Your task to perform on an android device: Go to eBay Image 0: 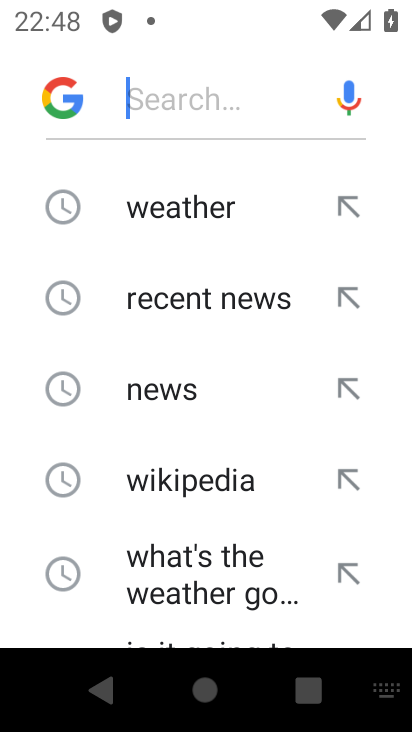
Step 0: drag from (237, 529) to (352, 724)
Your task to perform on an android device: Go to eBay Image 1: 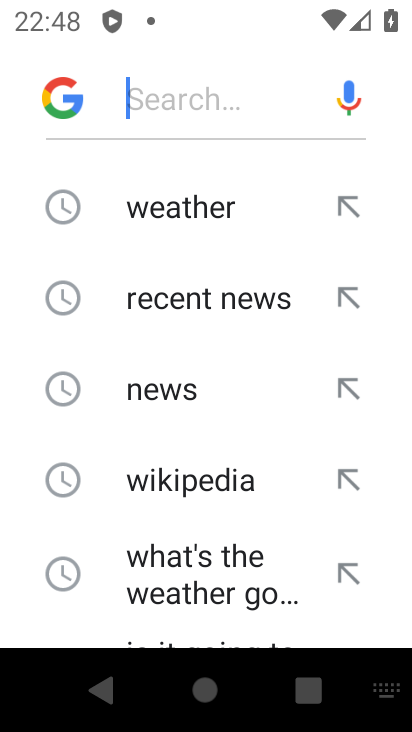
Step 1: click (158, 91)
Your task to perform on an android device: Go to eBay Image 2: 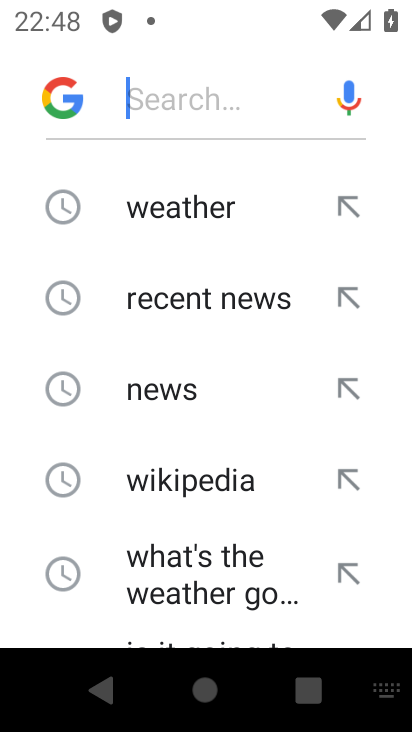
Step 2: type " eBay"
Your task to perform on an android device: Go to eBay Image 3: 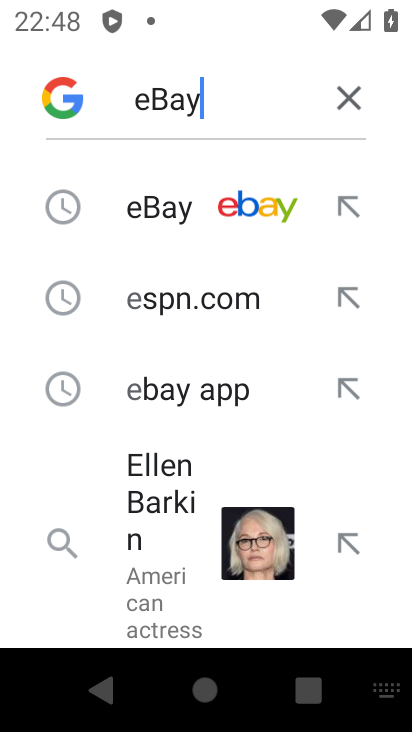
Step 3: type ""
Your task to perform on an android device: Go to eBay Image 4: 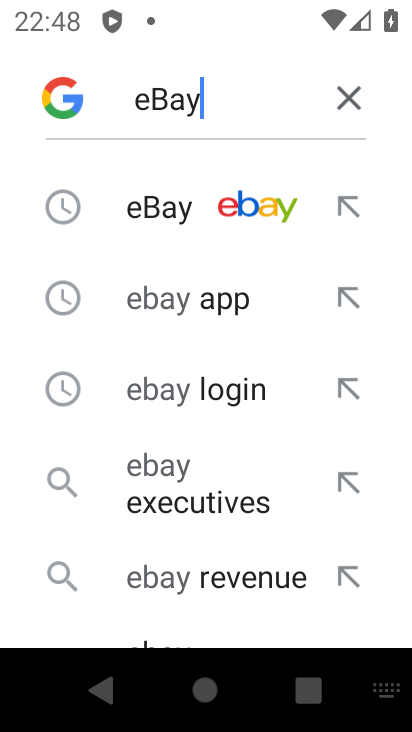
Step 4: click (176, 221)
Your task to perform on an android device: Go to eBay Image 5: 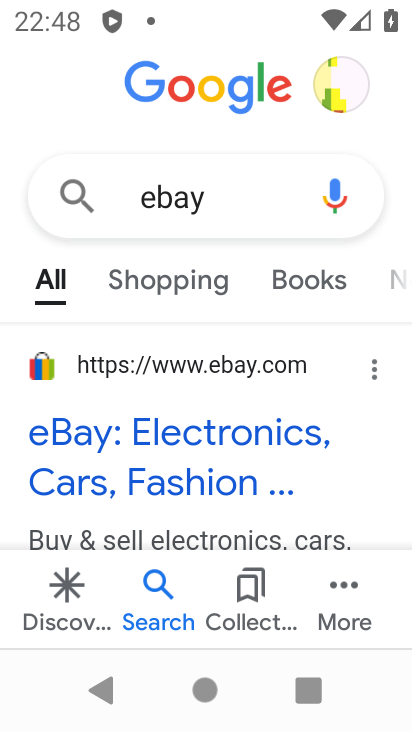
Step 5: drag from (243, 494) to (270, 137)
Your task to perform on an android device: Go to eBay Image 6: 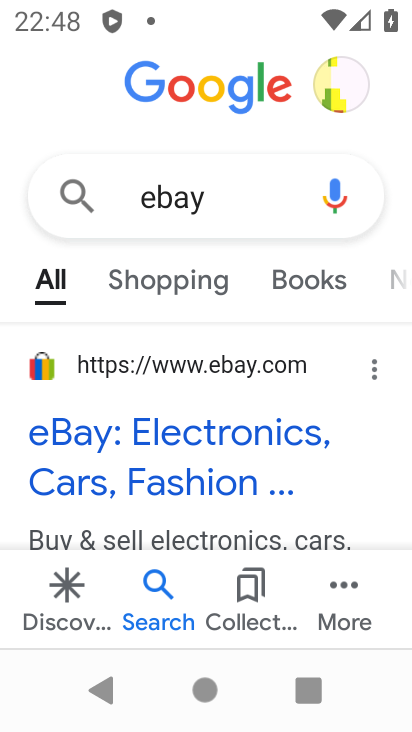
Step 6: click (176, 444)
Your task to perform on an android device: Go to eBay Image 7: 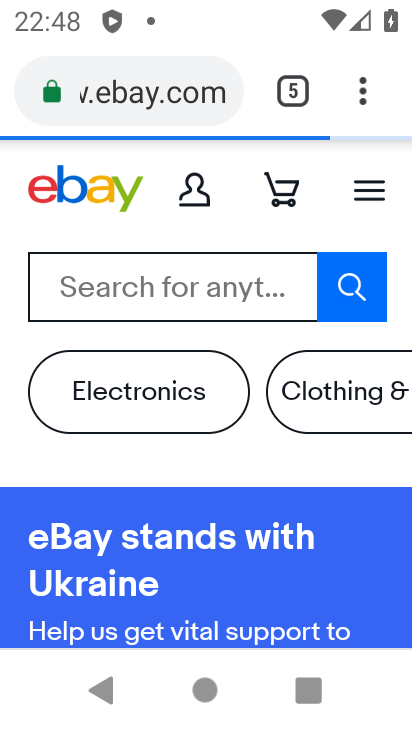
Step 7: task complete